Your task to perform on an android device: read, delete, or share a saved page in the chrome app Image 0: 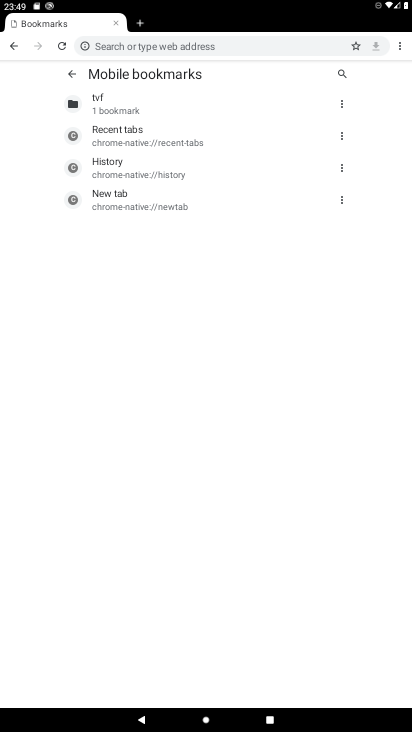
Step 0: press home button
Your task to perform on an android device: read, delete, or share a saved page in the chrome app Image 1: 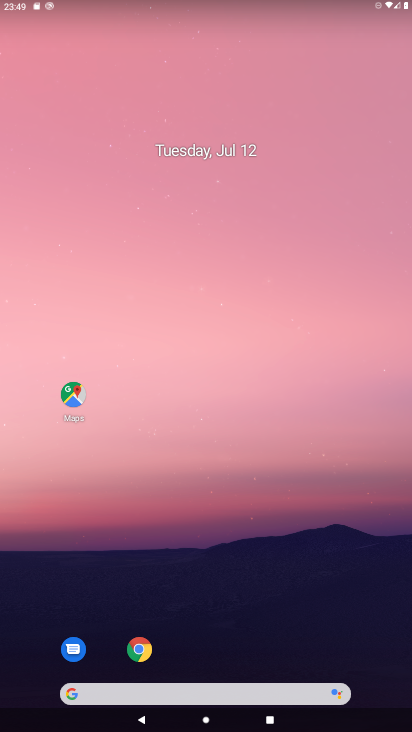
Step 1: click (136, 649)
Your task to perform on an android device: read, delete, or share a saved page in the chrome app Image 2: 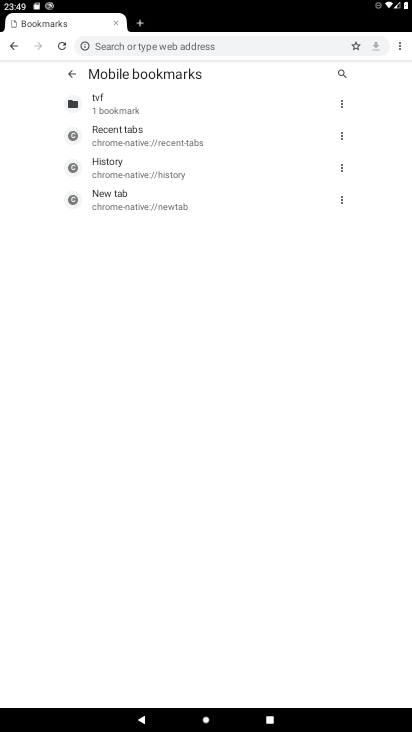
Step 2: click (398, 50)
Your task to perform on an android device: read, delete, or share a saved page in the chrome app Image 3: 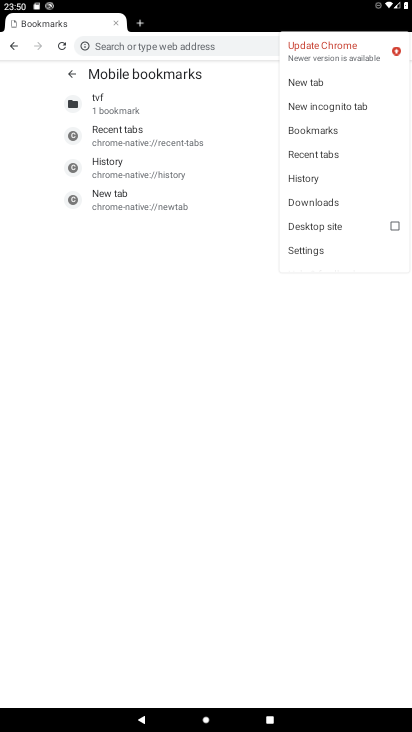
Step 3: click (301, 205)
Your task to perform on an android device: read, delete, or share a saved page in the chrome app Image 4: 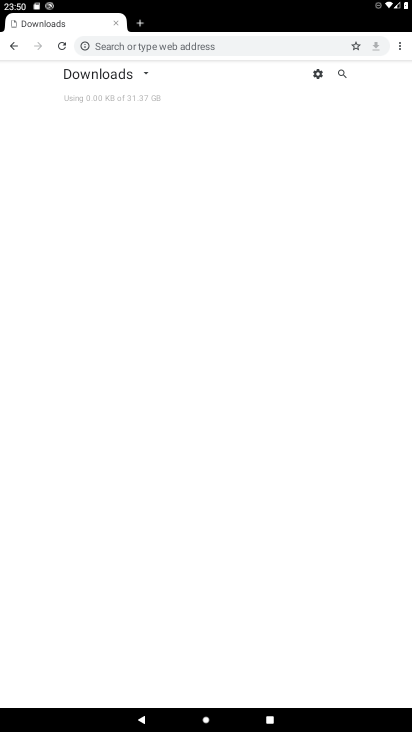
Step 4: click (140, 74)
Your task to perform on an android device: read, delete, or share a saved page in the chrome app Image 5: 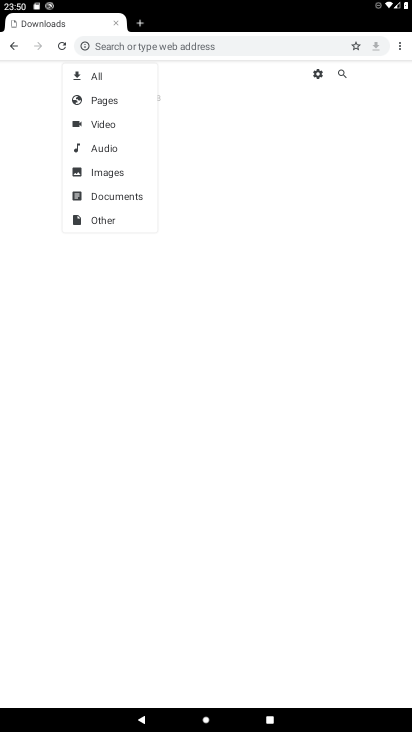
Step 5: click (94, 98)
Your task to perform on an android device: read, delete, or share a saved page in the chrome app Image 6: 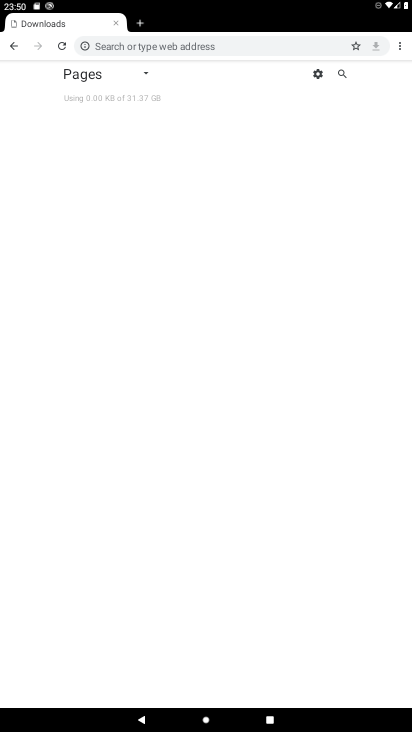
Step 6: task complete